Your task to perform on an android device: Go to CNN.com Image 0: 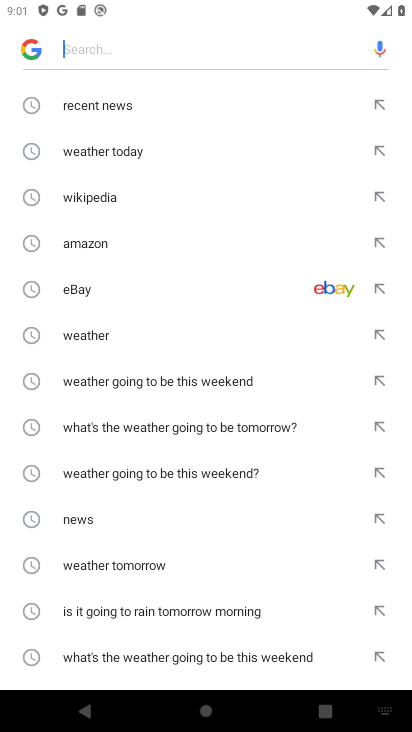
Step 0: press home button
Your task to perform on an android device: Go to CNN.com Image 1: 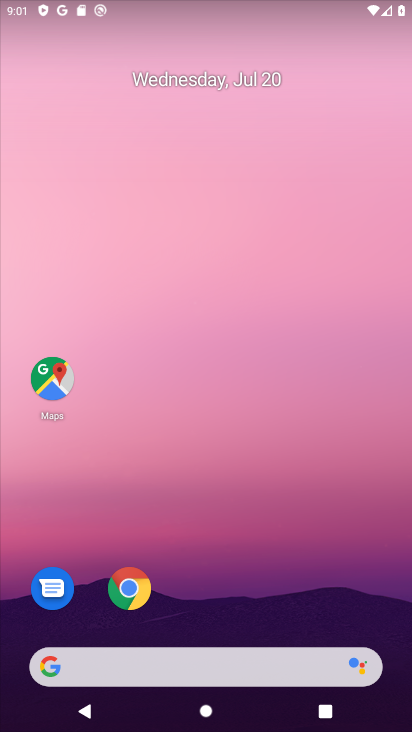
Step 1: drag from (248, 554) to (283, 59)
Your task to perform on an android device: Go to CNN.com Image 2: 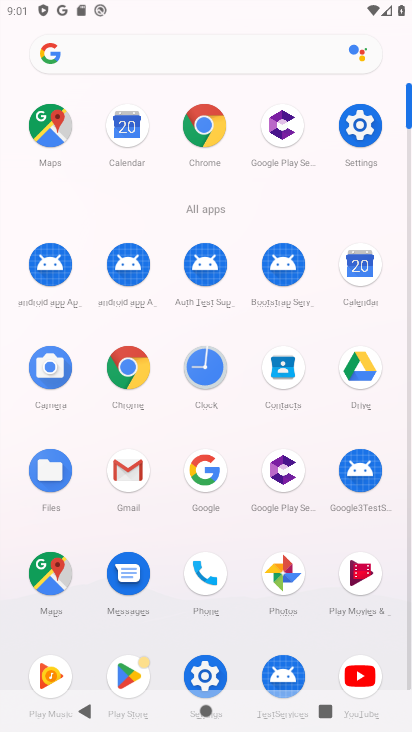
Step 2: click (134, 379)
Your task to perform on an android device: Go to CNN.com Image 3: 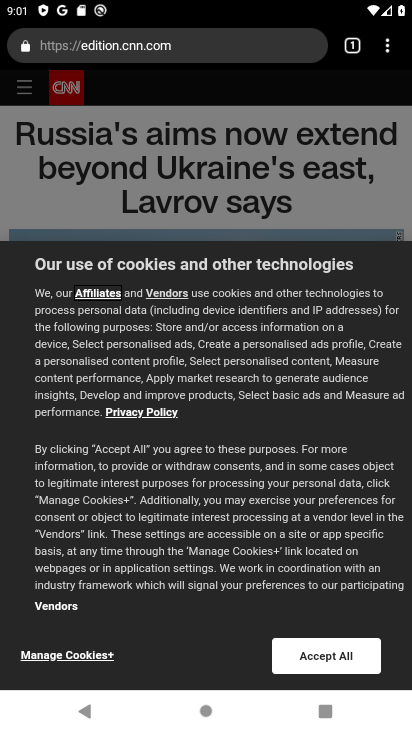
Step 3: task complete